Your task to perform on an android device: Go to Google Image 0: 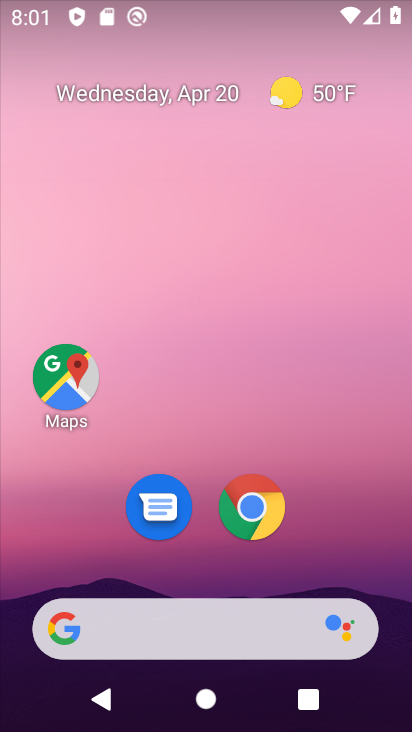
Step 0: drag from (249, 639) to (311, 134)
Your task to perform on an android device: Go to Google Image 1: 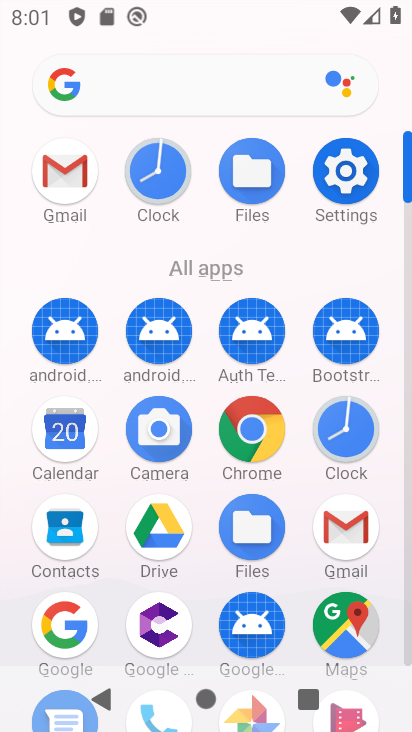
Step 1: click (51, 625)
Your task to perform on an android device: Go to Google Image 2: 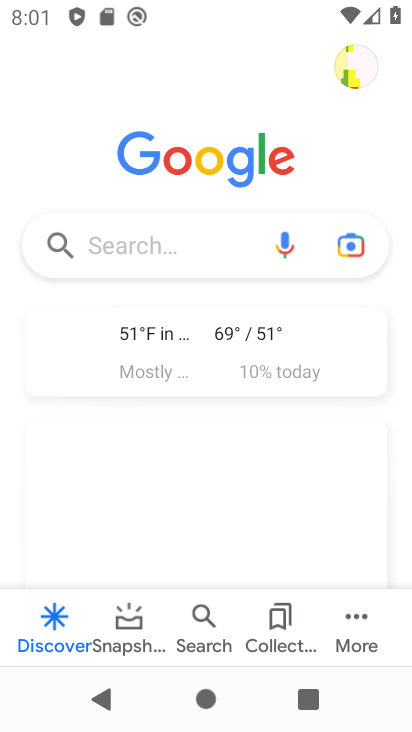
Step 2: click (158, 245)
Your task to perform on an android device: Go to Google Image 3: 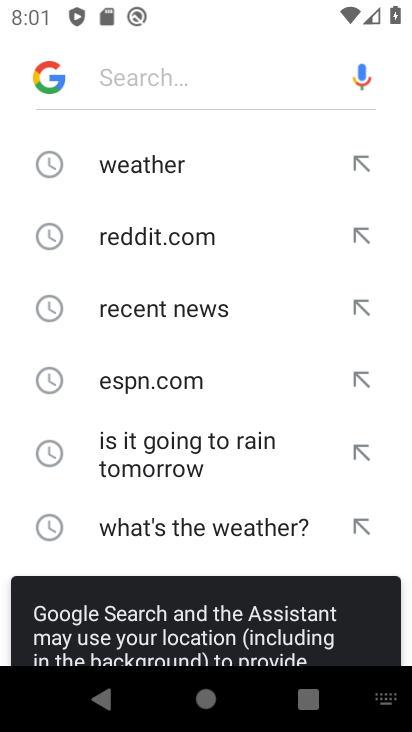
Step 3: task complete